Your task to perform on an android device: Search for Mexican restaurants on Maps Image 0: 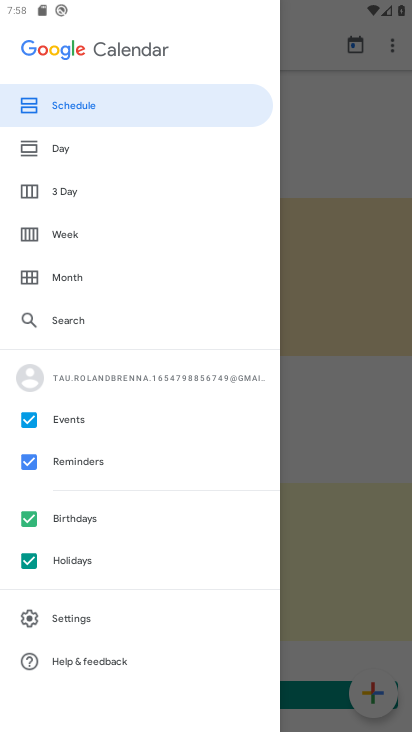
Step 0: press home button
Your task to perform on an android device: Search for Mexican restaurants on Maps Image 1: 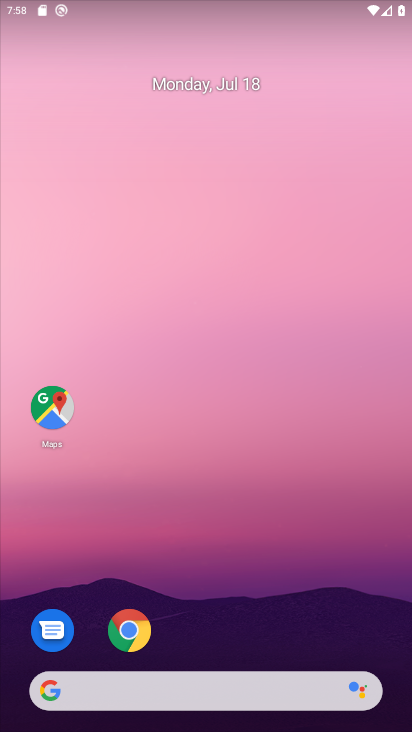
Step 1: click (57, 409)
Your task to perform on an android device: Search for Mexican restaurants on Maps Image 2: 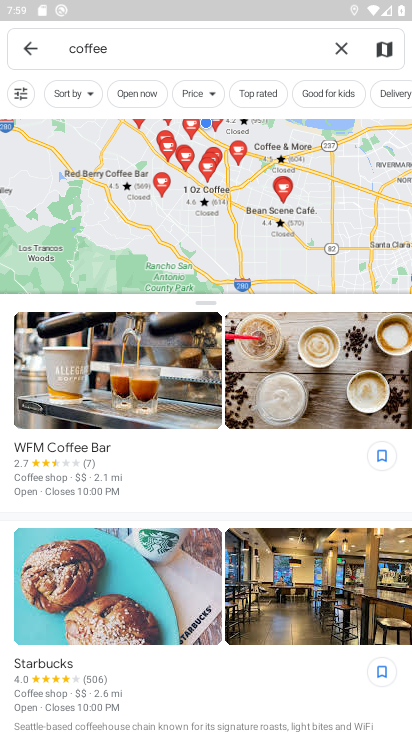
Step 2: click (333, 43)
Your task to perform on an android device: Search for Mexican restaurants on Maps Image 3: 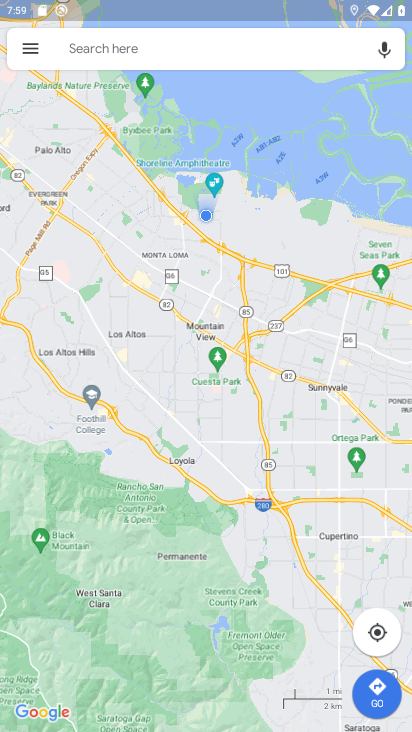
Step 3: click (163, 43)
Your task to perform on an android device: Search for Mexican restaurants on Maps Image 4: 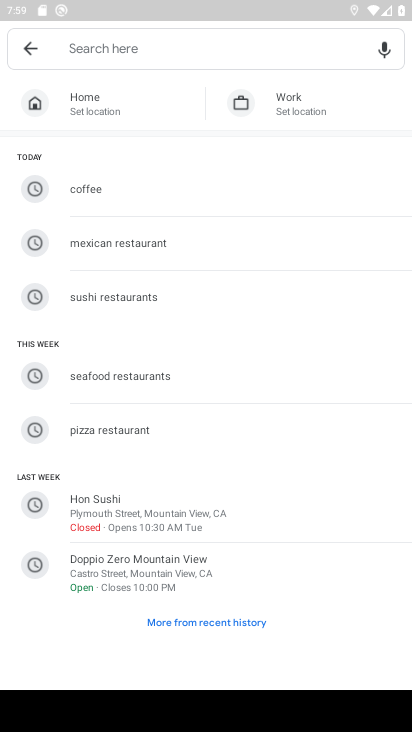
Step 4: click (135, 235)
Your task to perform on an android device: Search for Mexican restaurants on Maps Image 5: 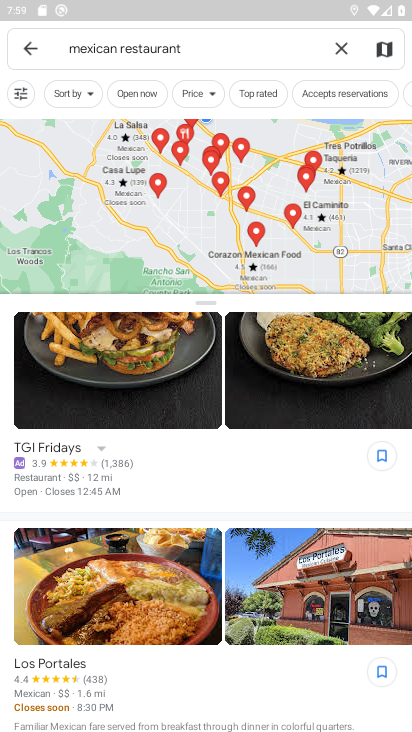
Step 5: task complete